Your task to perform on an android device: see sites visited before in the chrome app Image 0: 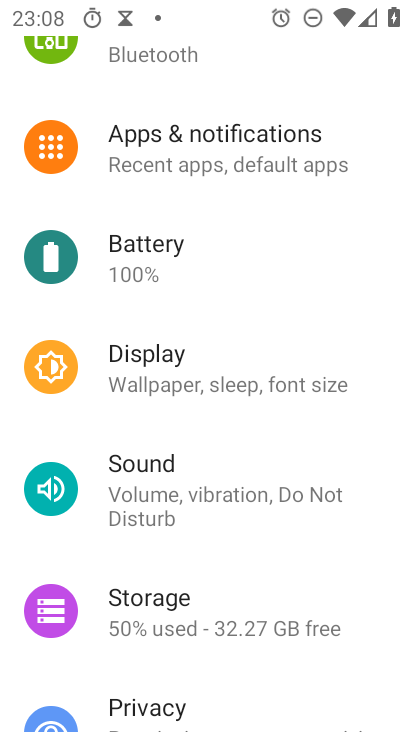
Step 0: press home button
Your task to perform on an android device: see sites visited before in the chrome app Image 1: 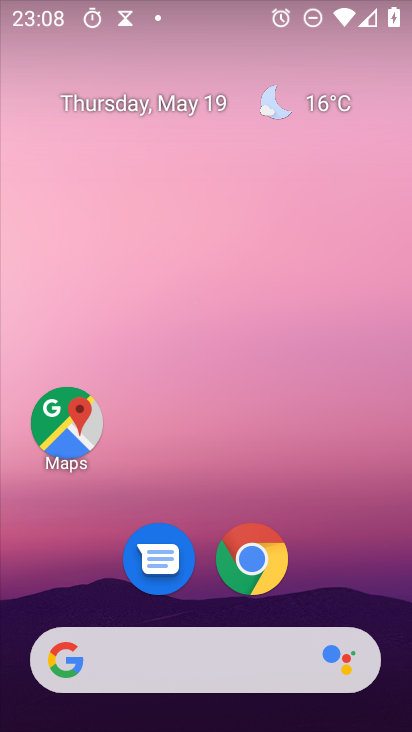
Step 1: click (258, 559)
Your task to perform on an android device: see sites visited before in the chrome app Image 2: 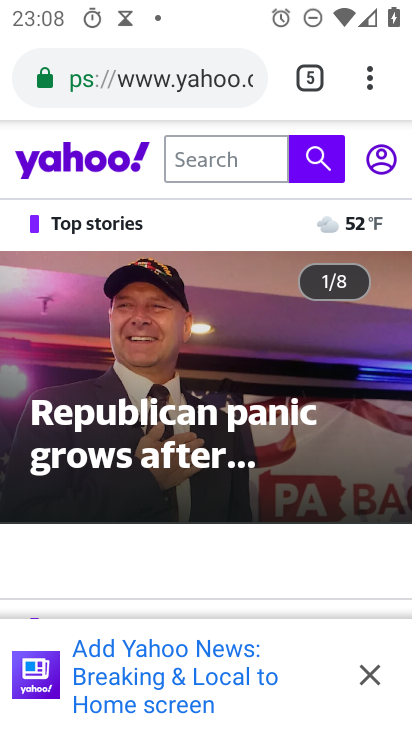
Step 2: click (368, 84)
Your task to perform on an android device: see sites visited before in the chrome app Image 3: 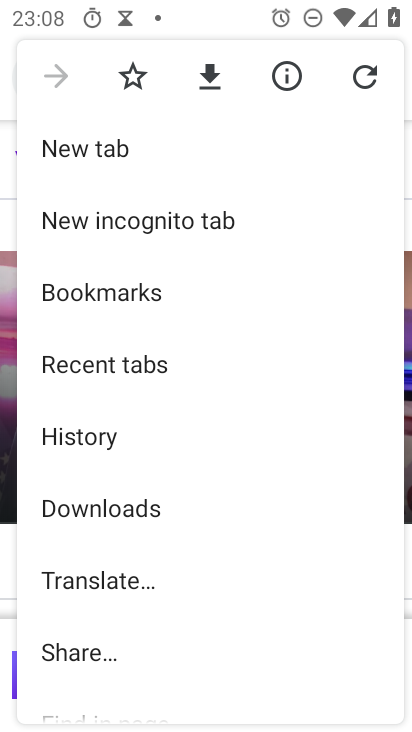
Step 3: click (90, 433)
Your task to perform on an android device: see sites visited before in the chrome app Image 4: 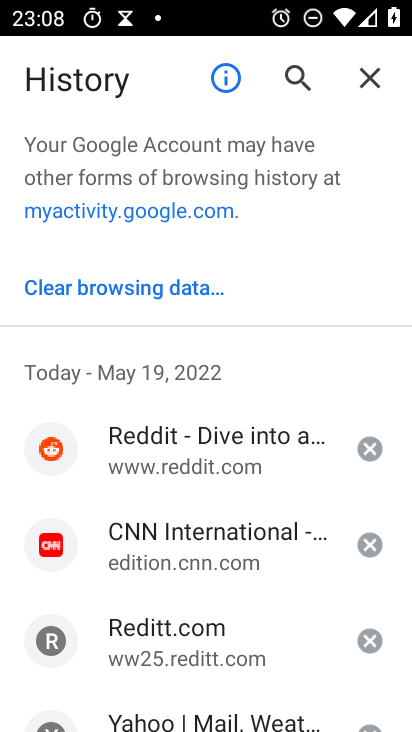
Step 4: task complete